Your task to perform on an android device: turn on sleep mode Image 0: 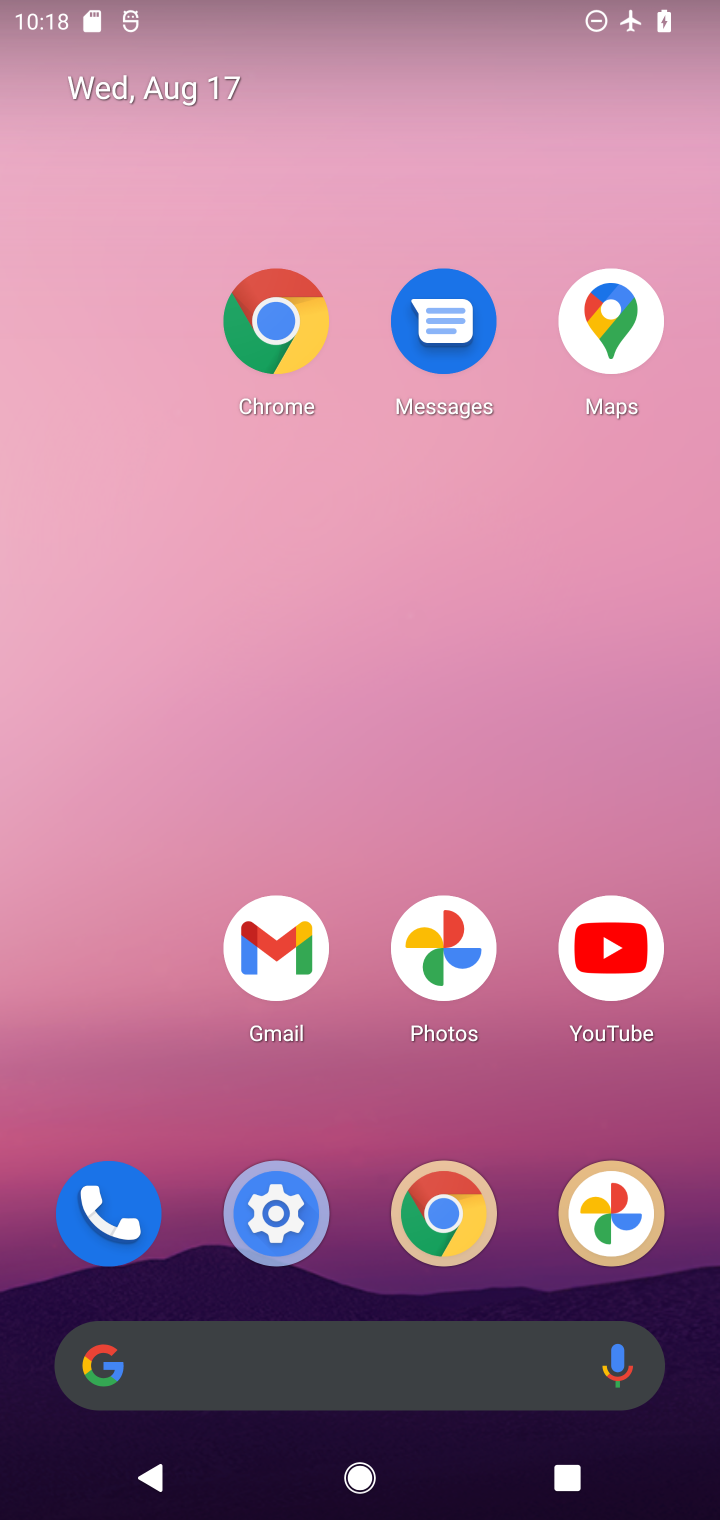
Step 0: click (260, 1199)
Your task to perform on an android device: turn on sleep mode Image 1: 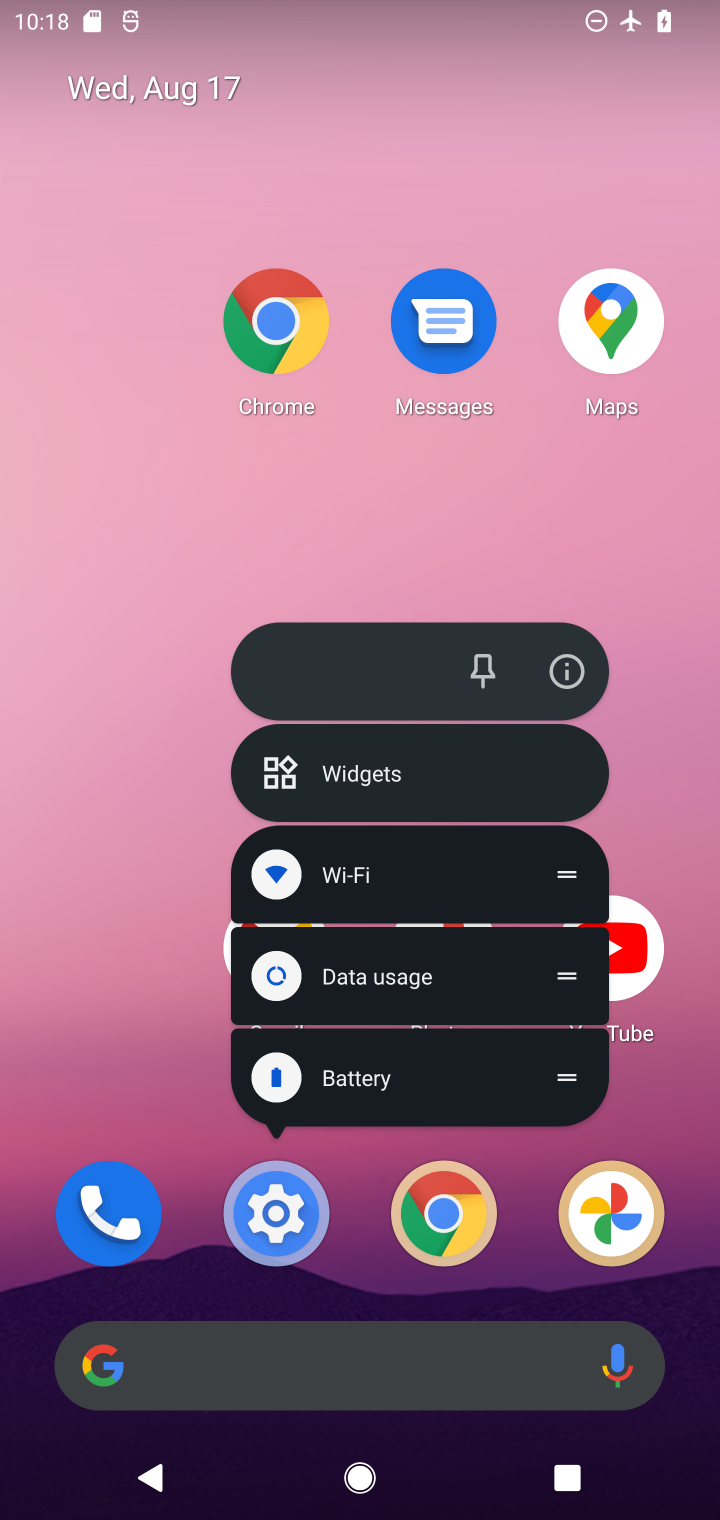
Step 1: click (260, 1199)
Your task to perform on an android device: turn on sleep mode Image 2: 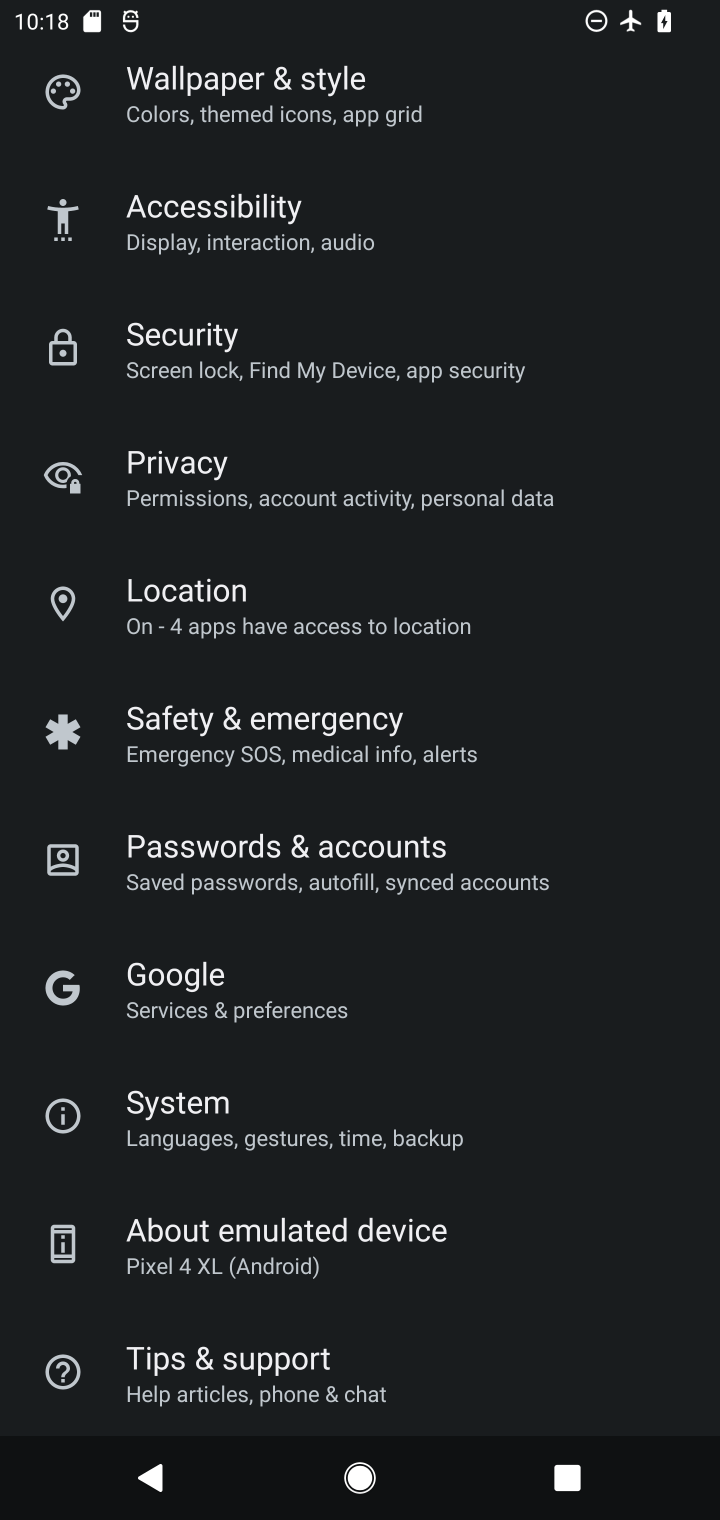
Step 2: task complete